Your task to perform on an android device: turn off picture-in-picture Image 0: 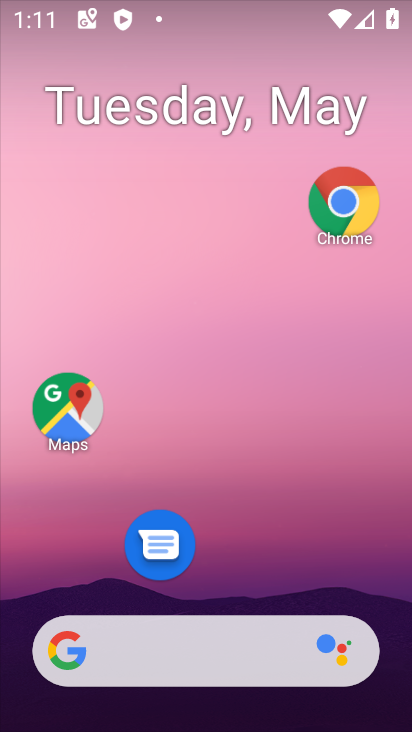
Step 0: click (350, 209)
Your task to perform on an android device: turn off picture-in-picture Image 1: 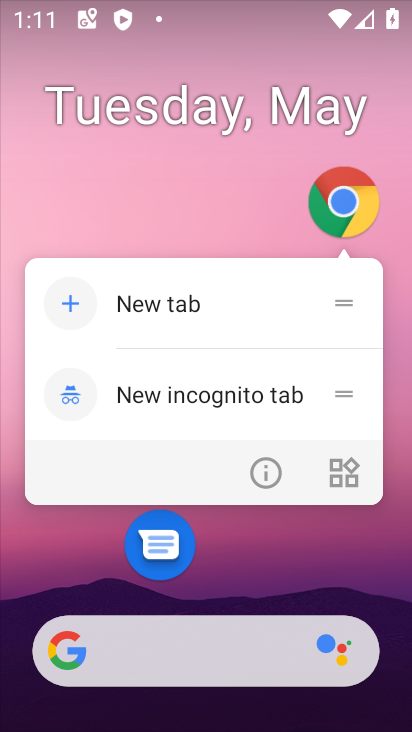
Step 1: click (276, 478)
Your task to perform on an android device: turn off picture-in-picture Image 2: 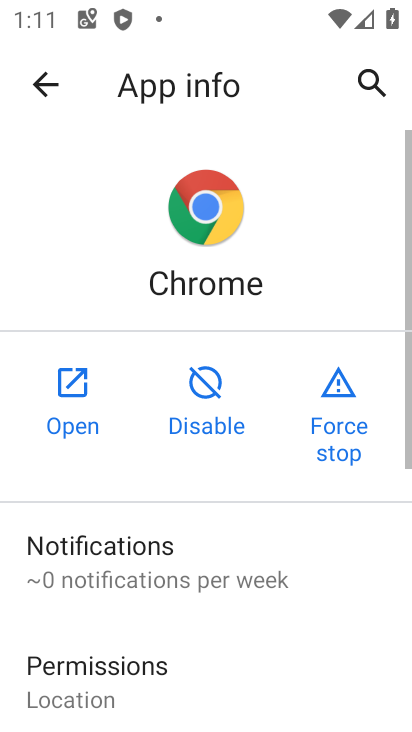
Step 2: drag from (82, 710) to (197, 152)
Your task to perform on an android device: turn off picture-in-picture Image 3: 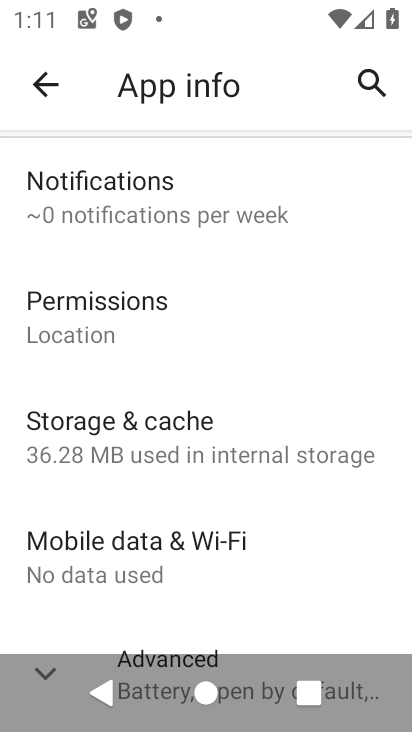
Step 3: drag from (85, 602) to (227, 33)
Your task to perform on an android device: turn off picture-in-picture Image 4: 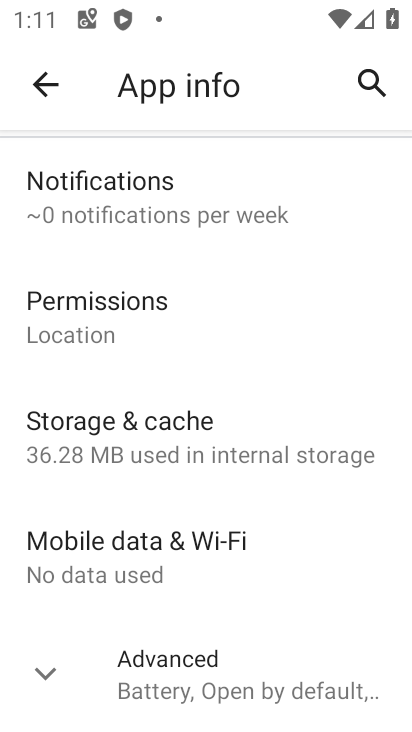
Step 4: click (127, 708)
Your task to perform on an android device: turn off picture-in-picture Image 5: 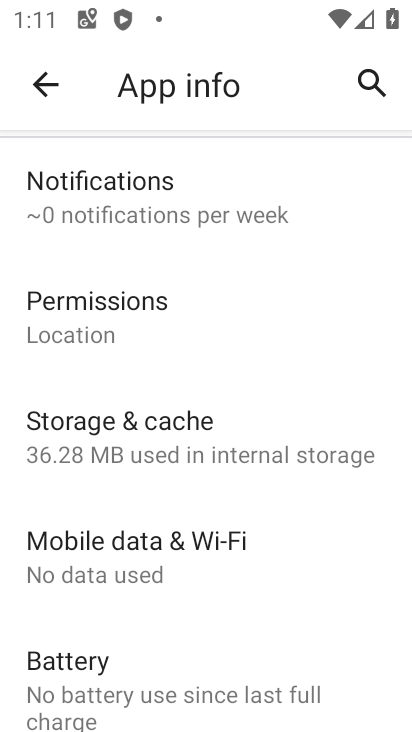
Step 5: drag from (155, 541) to (212, 190)
Your task to perform on an android device: turn off picture-in-picture Image 6: 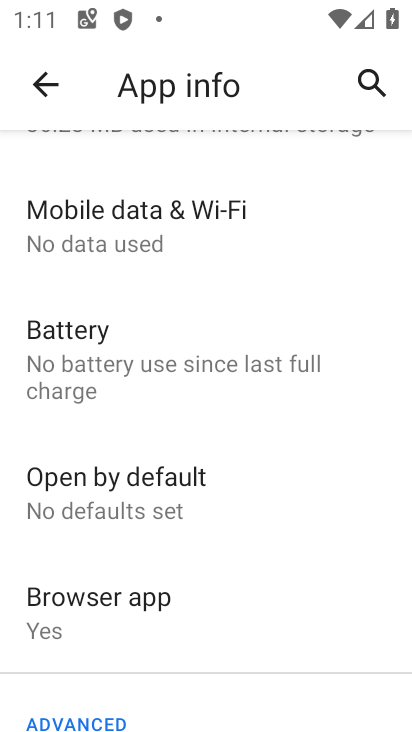
Step 6: drag from (172, 300) to (118, 731)
Your task to perform on an android device: turn off picture-in-picture Image 7: 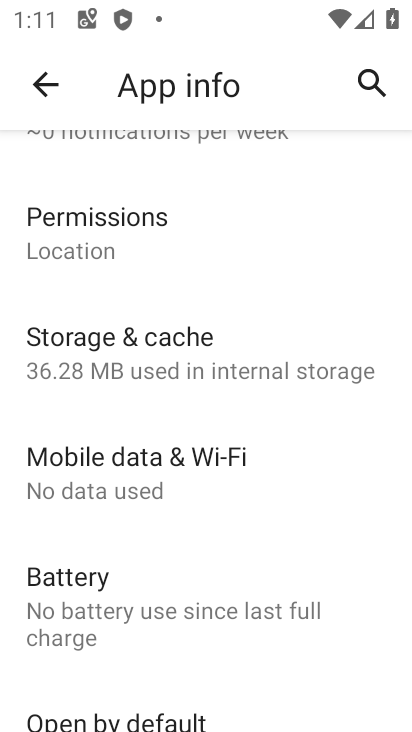
Step 7: drag from (194, 649) to (271, 223)
Your task to perform on an android device: turn off picture-in-picture Image 8: 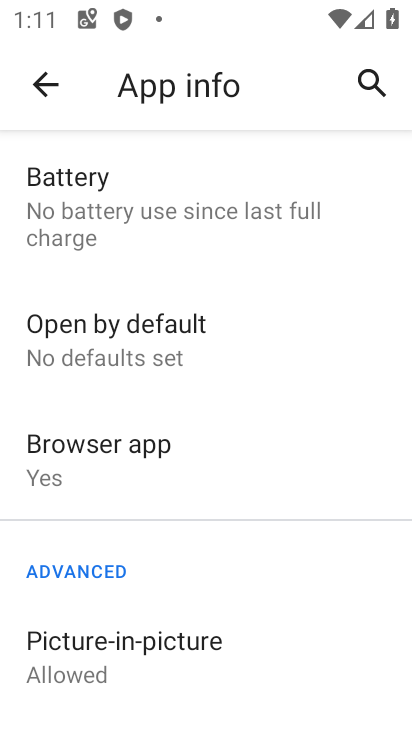
Step 8: click (113, 643)
Your task to perform on an android device: turn off picture-in-picture Image 9: 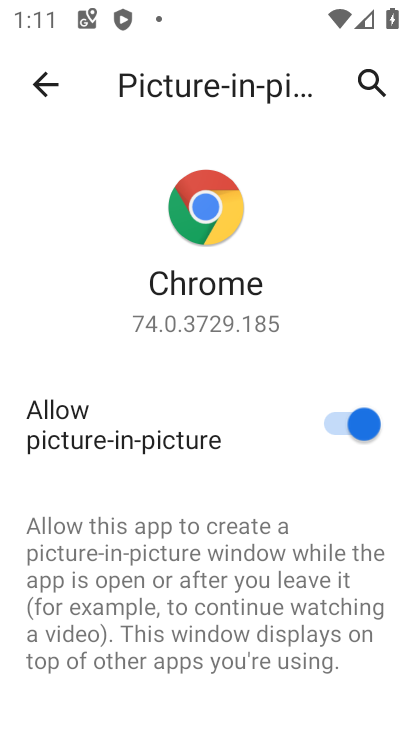
Step 9: click (341, 417)
Your task to perform on an android device: turn off picture-in-picture Image 10: 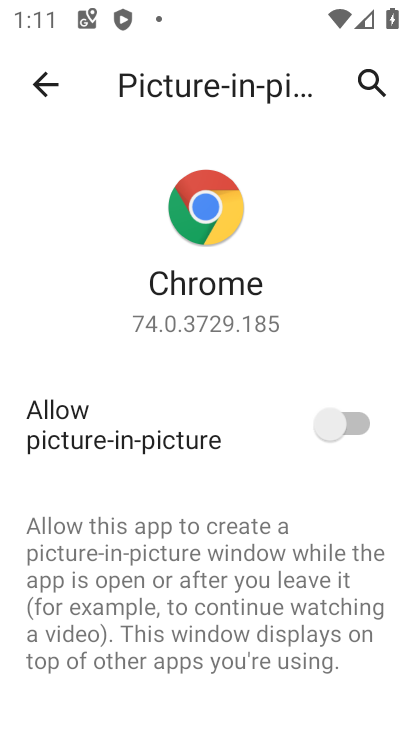
Step 10: task complete